Your task to perform on an android device: What is the news today? Image 0: 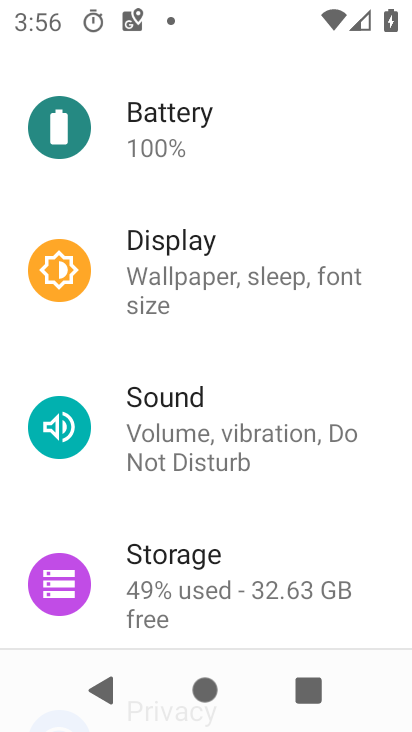
Step 0: press home button
Your task to perform on an android device: What is the news today? Image 1: 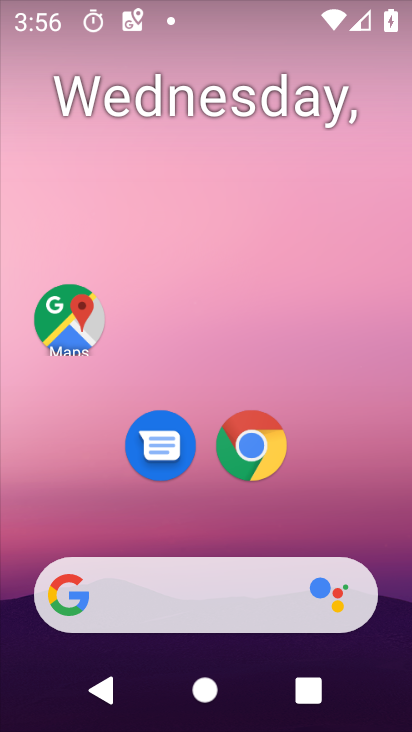
Step 1: drag from (199, 521) to (227, 85)
Your task to perform on an android device: What is the news today? Image 2: 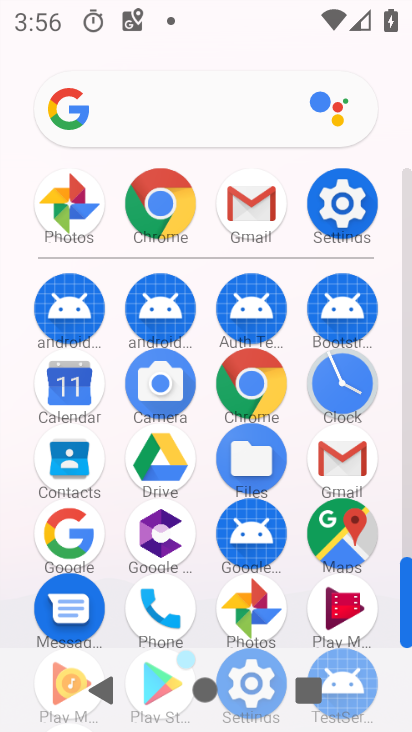
Step 2: click (66, 538)
Your task to perform on an android device: What is the news today? Image 3: 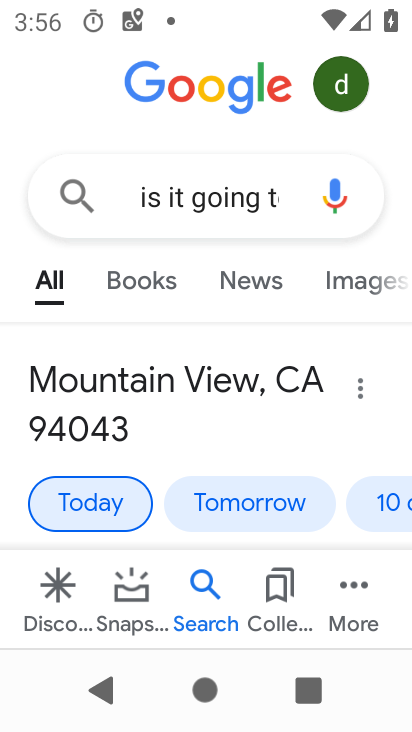
Step 3: click (233, 198)
Your task to perform on an android device: What is the news today? Image 4: 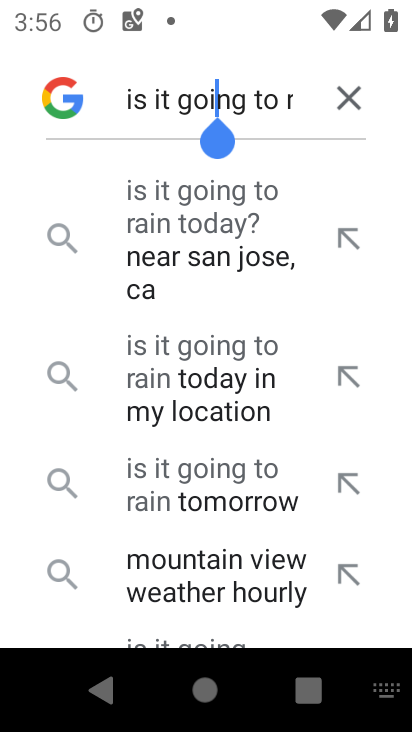
Step 4: click (335, 101)
Your task to perform on an android device: What is the news today? Image 5: 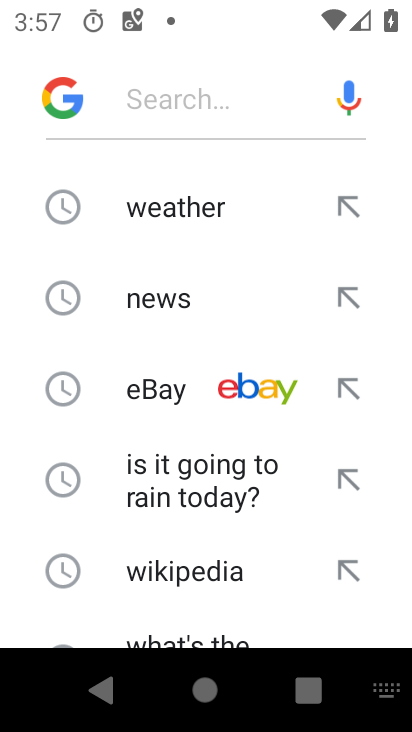
Step 5: click (155, 285)
Your task to perform on an android device: What is the news today? Image 6: 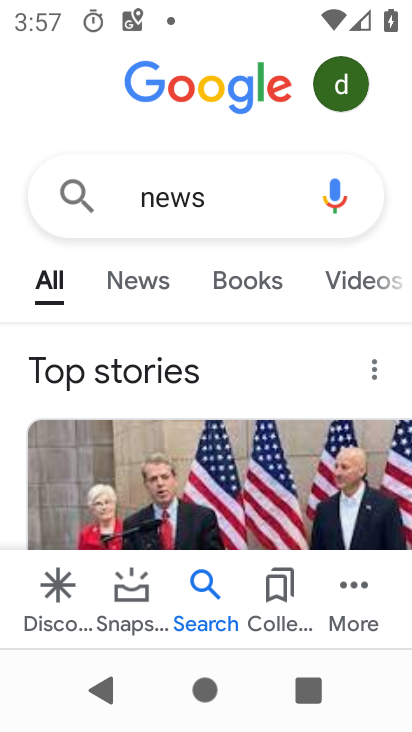
Step 6: task complete